Your task to perform on an android device: Go to privacy settings Image 0: 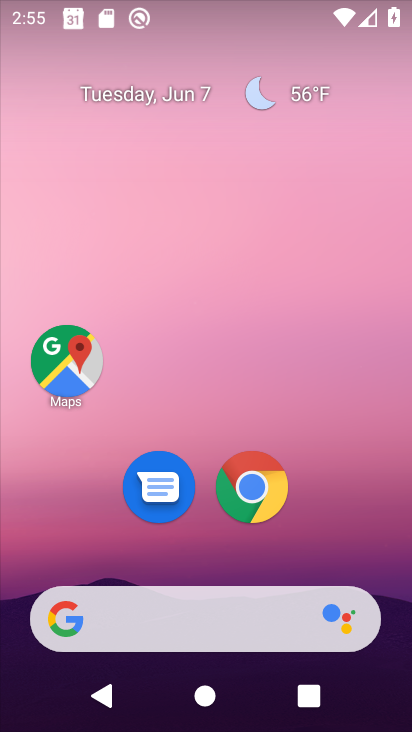
Step 0: drag from (371, 538) to (280, 128)
Your task to perform on an android device: Go to privacy settings Image 1: 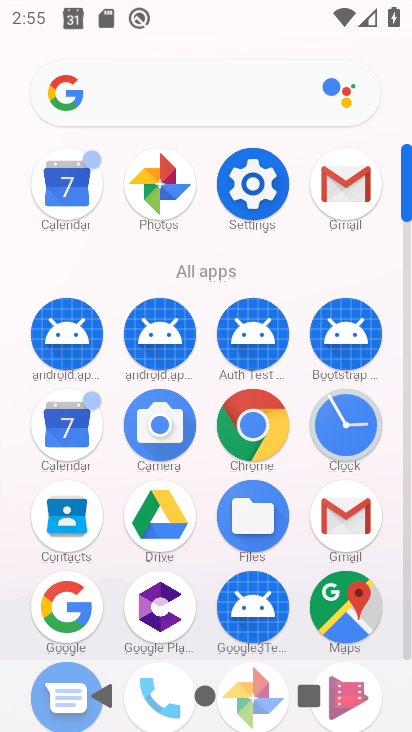
Step 1: click (267, 198)
Your task to perform on an android device: Go to privacy settings Image 2: 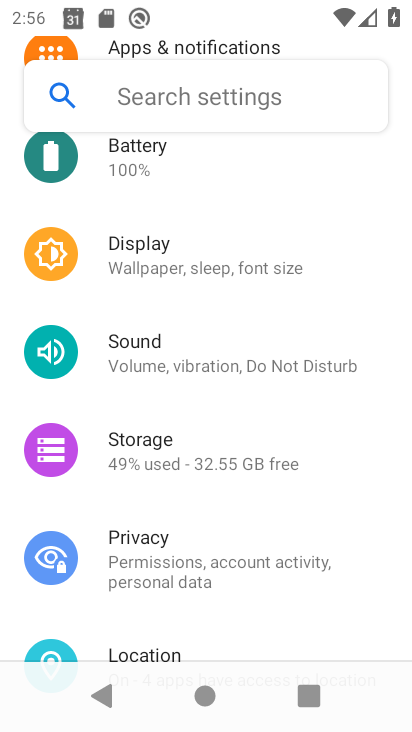
Step 2: click (303, 557)
Your task to perform on an android device: Go to privacy settings Image 3: 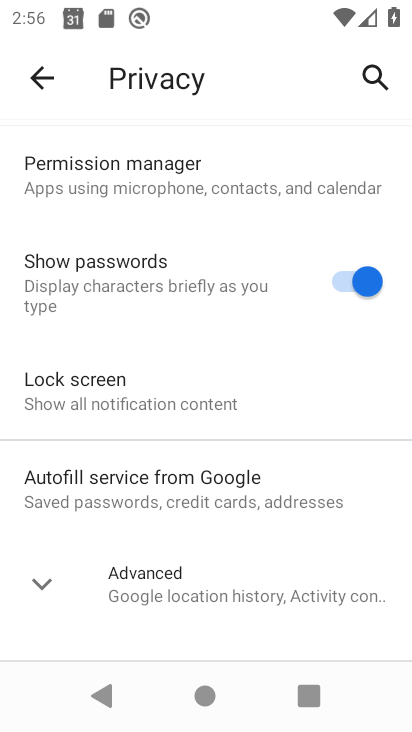
Step 3: task complete